Your task to perform on an android device: toggle notifications settings in the gmail app Image 0: 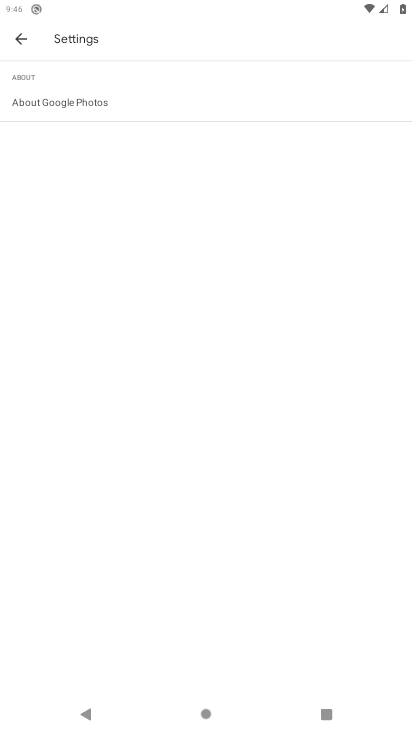
Step 0: press home button
Your task to perform on an android device: toggle notifications settings in the gmail app Image 1: 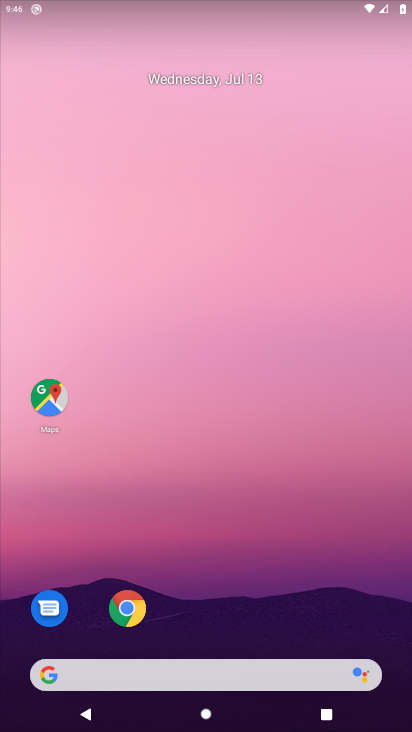
Step 1: drag from (23, 696) to (348, 14)
Your task to perform on an android device: toggle notifications settings in the gmail app Image 2: 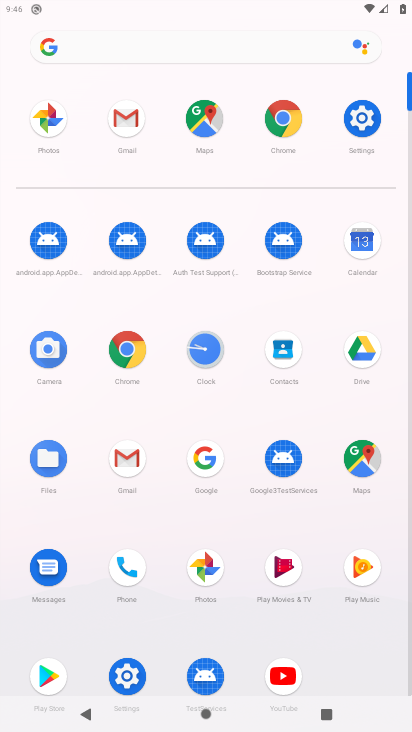
Step 2: click (122, 683)
Your task to perform on an android device: toggle notifications settings in the gmail app Image 3: 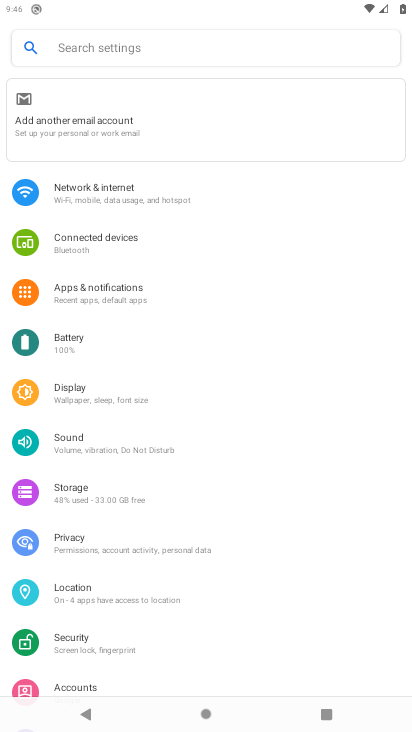
Step 3: click (92, 294)
Your task to perform on an android device: toggle notifications settings in the gmail app Image 4: 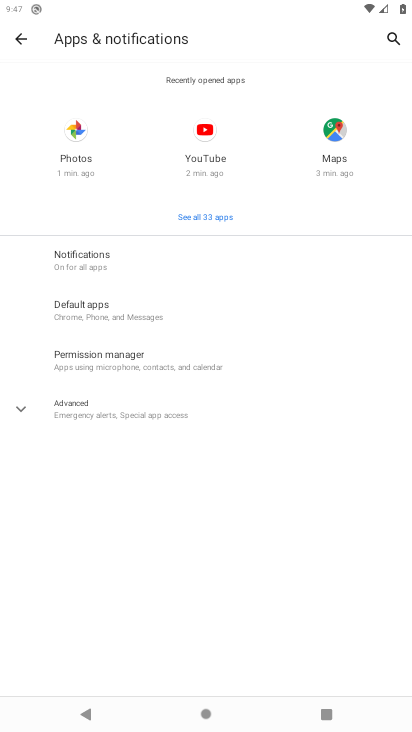
Step 4: task complete